Your task to perform on an android device: Go to internet settings Image 0: 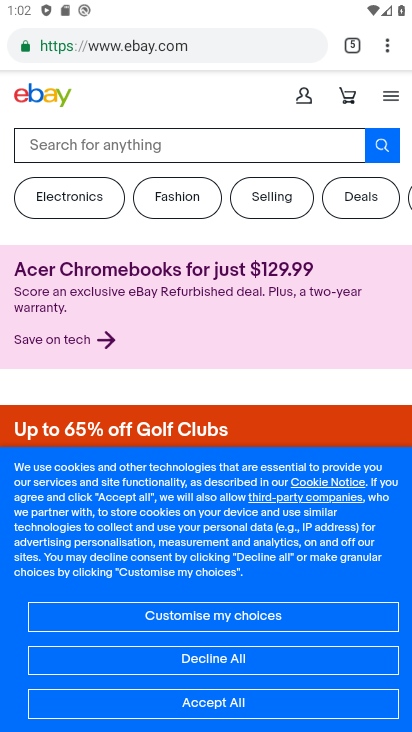
Step 0: press home button
Your task to perform on an android device: Go to internet settings Image 1: 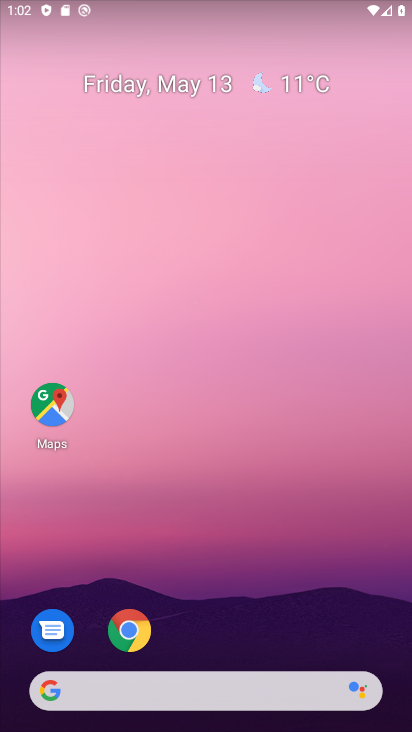
Step 1: drag from (234, 602) to (239, 234)
Your task to perform on an android device: Go to internet settings Image 2: 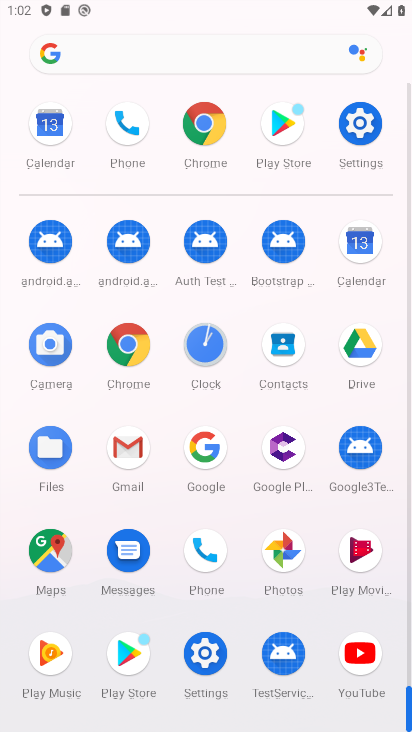
Step 2: click (373, 130)
Your task to perform on an android device: Go to internet settings Image 3: 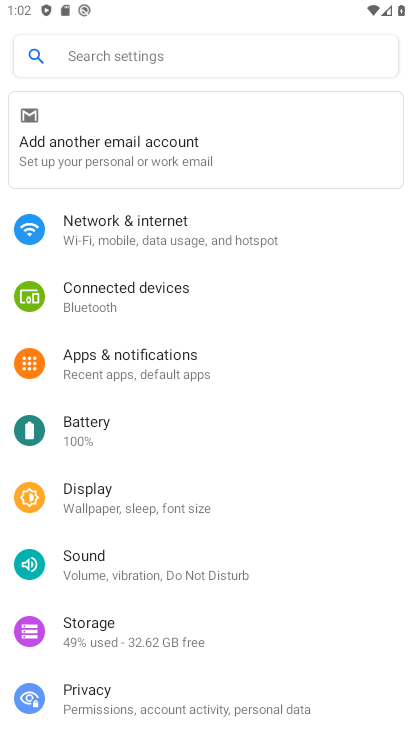
Step 3: click (184, 237)
Your task to perform on an android device: Go to internet settings Image 4: 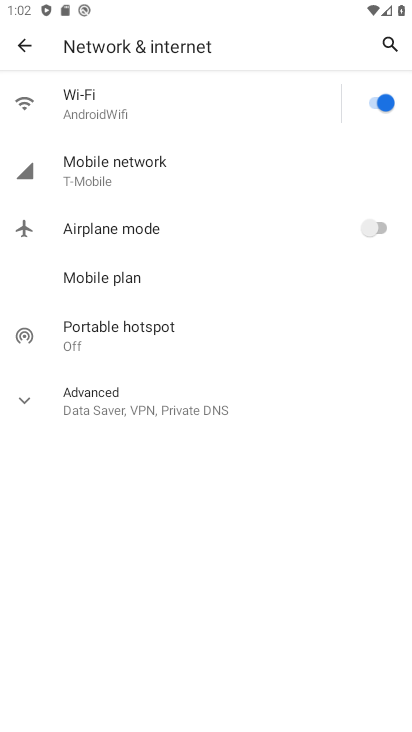
Step 4: click (192, 188)
Your task to perform on an android device: Go to internet settings Image 5: 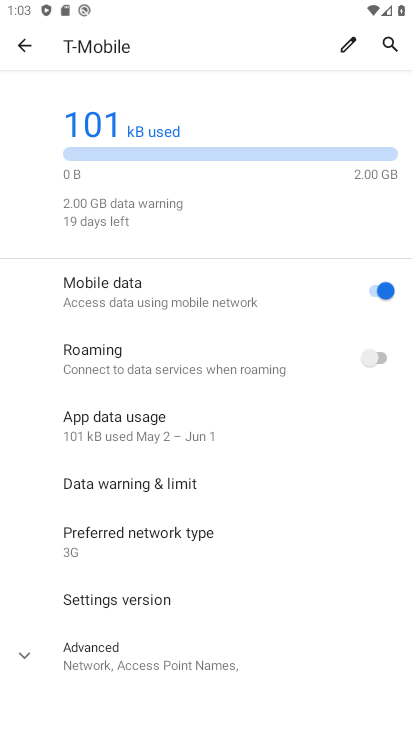
Step 5: task complete